Your task to perform on an android device: Do I have any events this weekend? Image 0: 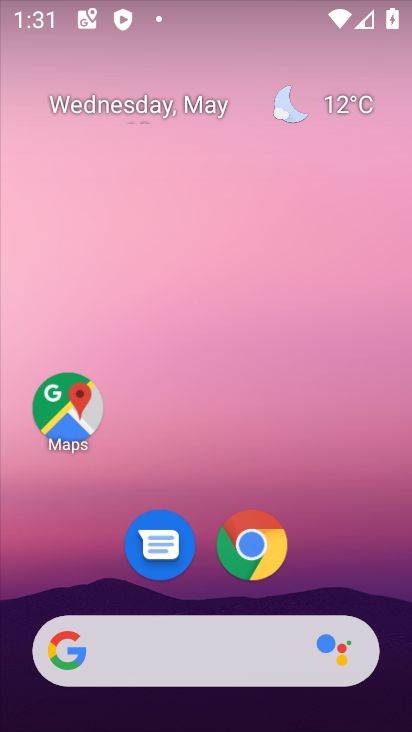
Step 0: drag from (360, 579) to (381, 127)
Your task to perform on an android device: Do I have any events this weekend? Image 1: 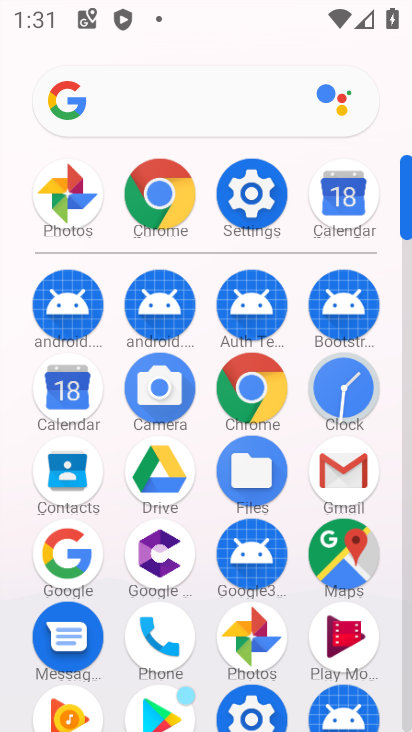
Step 1: click (81, 401)
Your task to perform on an android device: Do I have any events this weekend? Image 2: 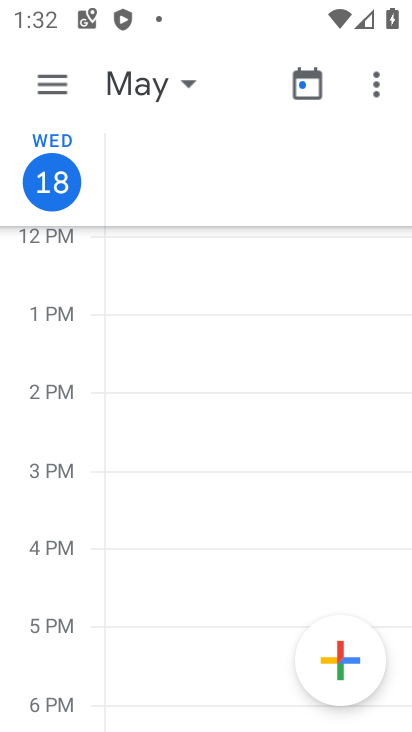
Step 2: click (149, 61)
Your task to perform on an android device: Do I have any events this weekend? Image 3: 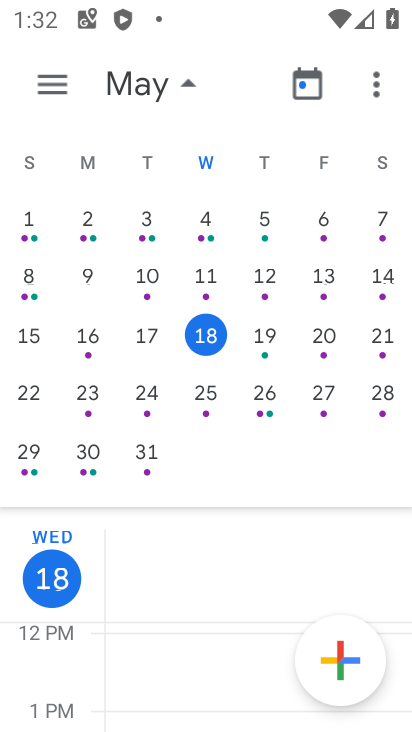
Step 3: click (312, 337)
Your task to perform on an android device: Do I have any events this weekend? Image 4: 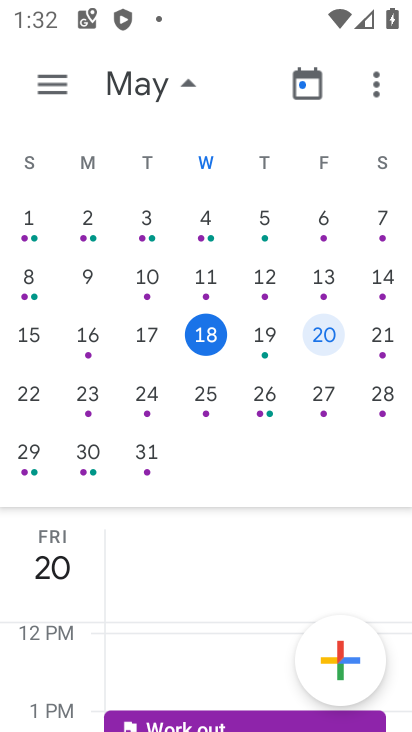
Step 4: click (64, 73)
Your task to perform on an android device: Do I have any events this weekend? Image 5: 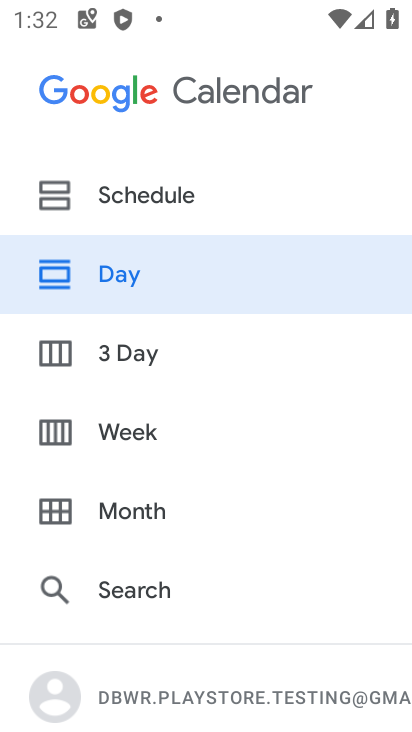
Step 5: click (116, 353)
Your task to perform on an android device: Do I have any events this weekend? Image 6: 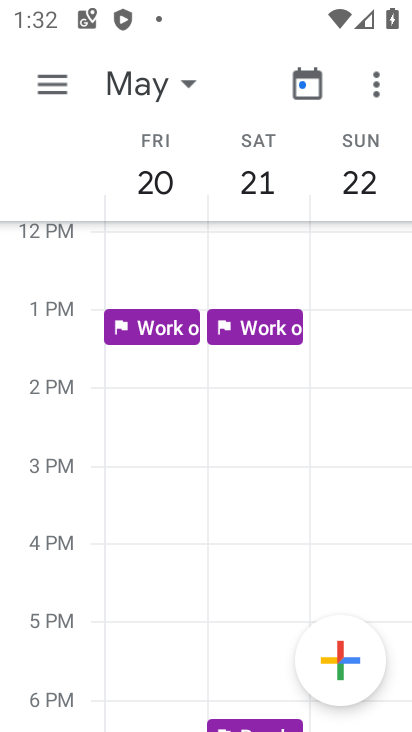
Step 6: task complete